Your task to perform on an android device: turn on improve location accuracy Image 0: 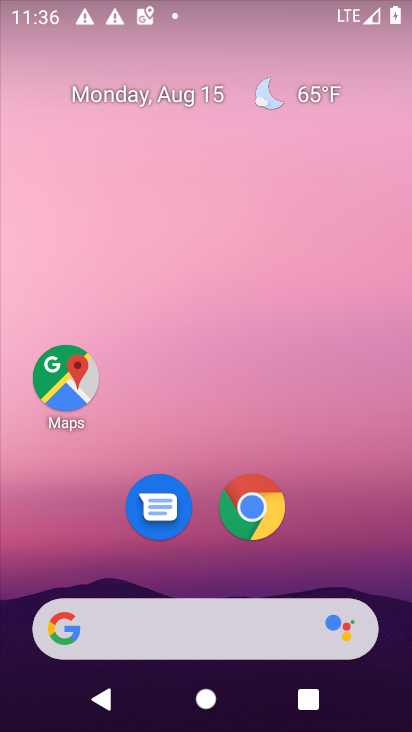
Step 0: drag from (203, 575) to (125, 108)
Your task to perform on an android device: turn on improve location accuracy Image 1: 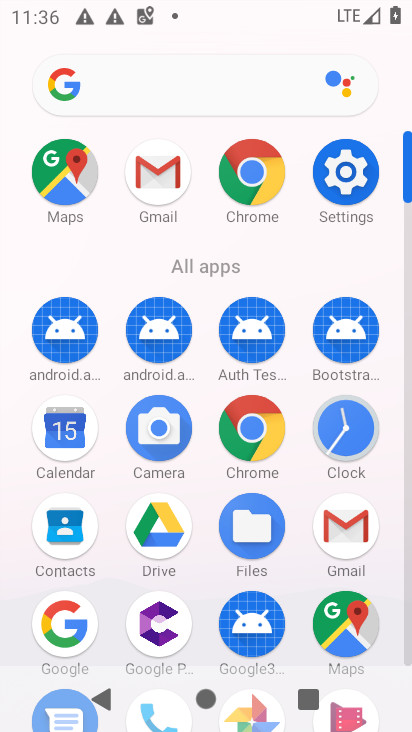
Step 1: click (346, 171)
Your task to perform on an android device: turn on improve location accuracy Image 2: 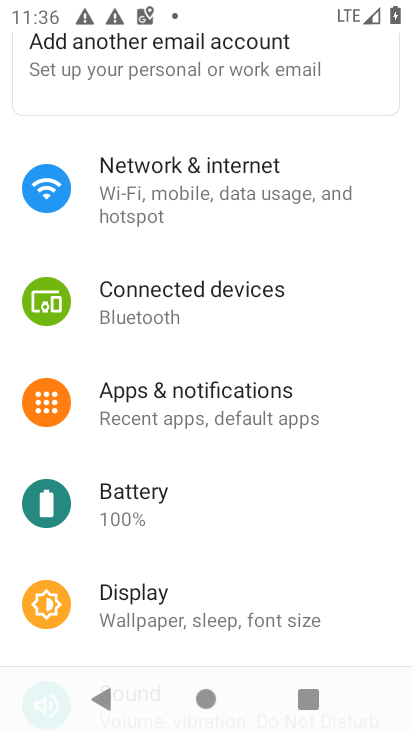
Step 2: drag from (263, 554) to (260, 179)
Your task to perform on an android device: turn on improve location accuracy Image 3: 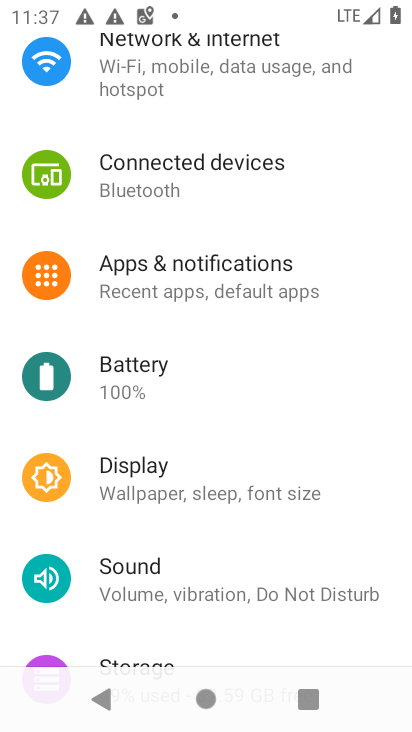
Step 3: drag from (247, 552) to (237, 223)
Your task to perform on an android device: turn on improve location accuracy Image 4: 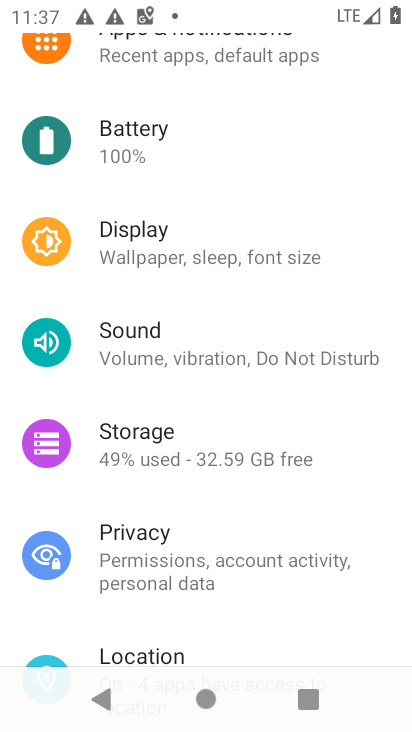
Step 4: drag from (242, 625) to (239, 257)
Your task to perform on an android device: turn on improve location accuracy Image 5: 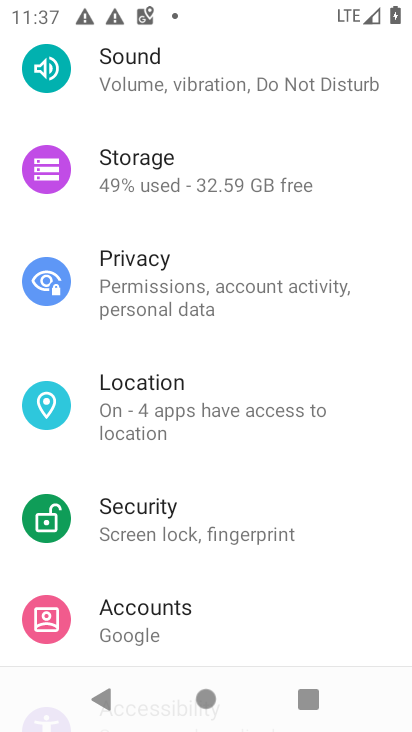
Step 5: click (156, 379)
Your task to perform on an android device: turn on improve location accuracy Image 6: 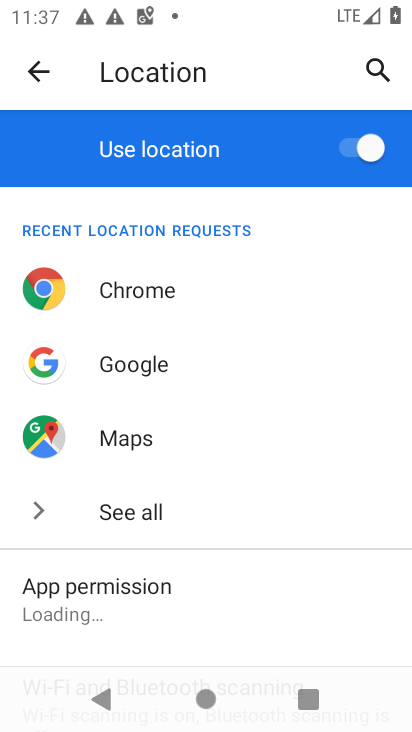
Step 6: drag from (219, 534) to (221, 209)
Your task to perform on an android device: turn on improve location accuracy Image 7: 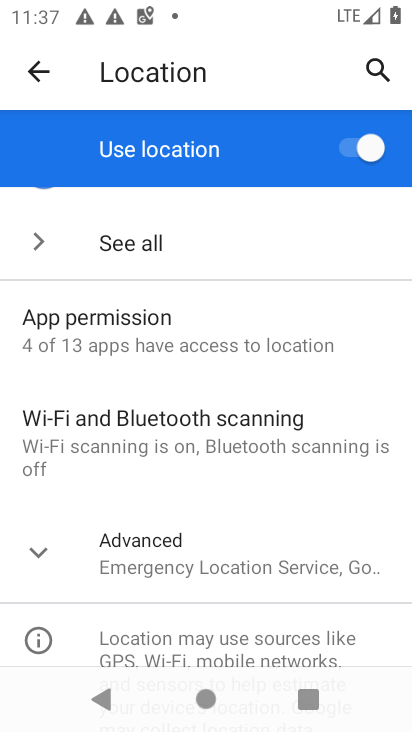
Step 7: drag from (250, 538) to (244, 235)
Your task to perform on an android device: turn on improve location accuracy Image 8: 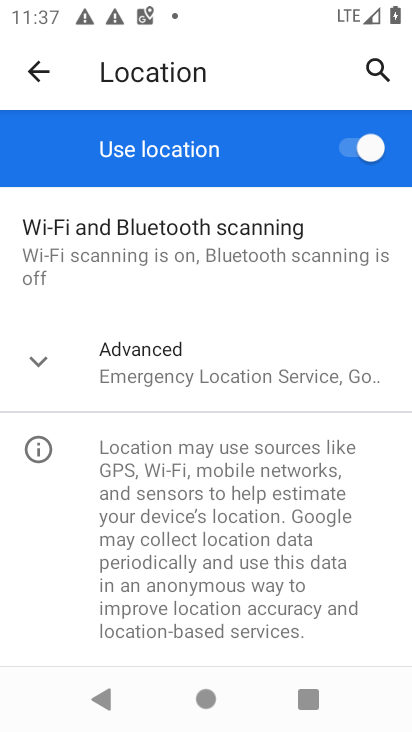
Step 8: click (38, 358)
Your task to perform on an android device: turn on improve location accuracy Image 9: 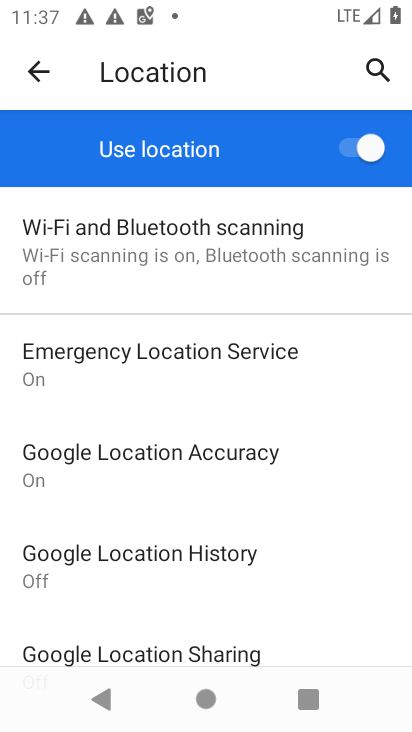
Step 9: click (173, 449)
Your task to perform on an android device: turn on improve location accuracy Image 10: 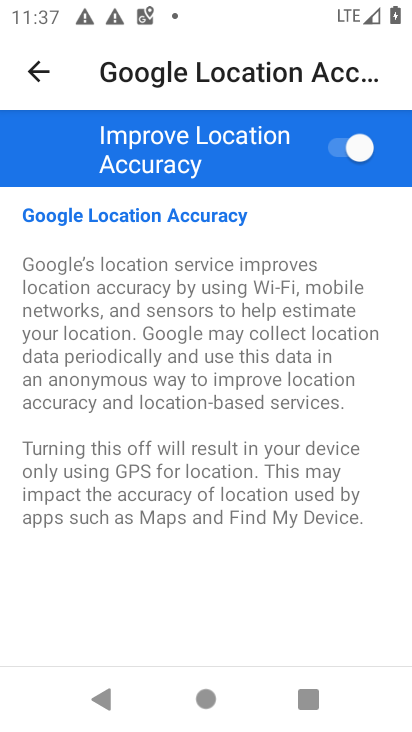
Step 10: task complete